Your task to perform on an android device: find snoozed emails in the gmail app Image 0: 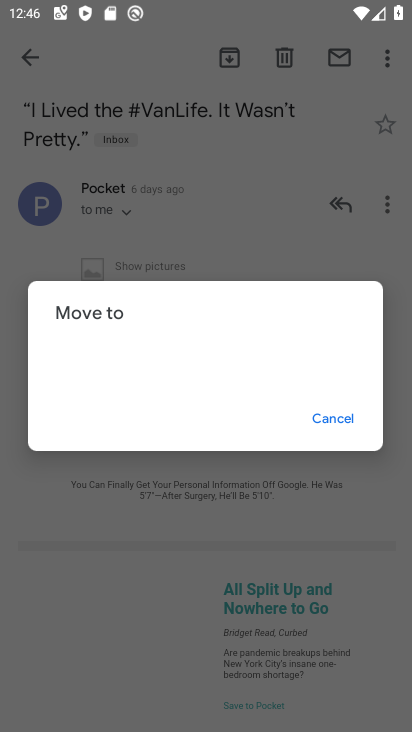
Step 0: press home button
Your task to perform on an android device: find snoozed emails in the gmail app Image 1: 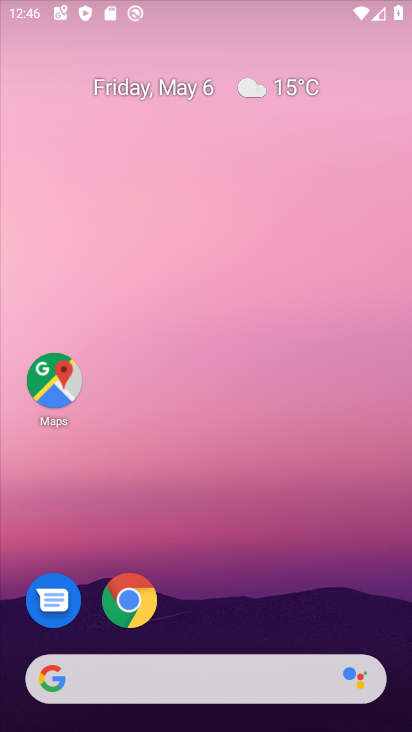
Step 1: drag from (373, 565) to (323, 68)
Your task to perform on an android device: find snoozed emails in the gmail app Image 2: 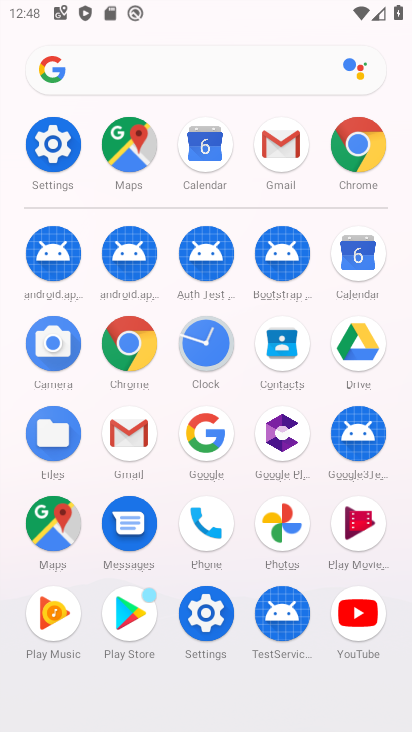
Step 2: click (134, 433)
Your task to perform on an android device: find snoozed emails in the gmail app Image 3: 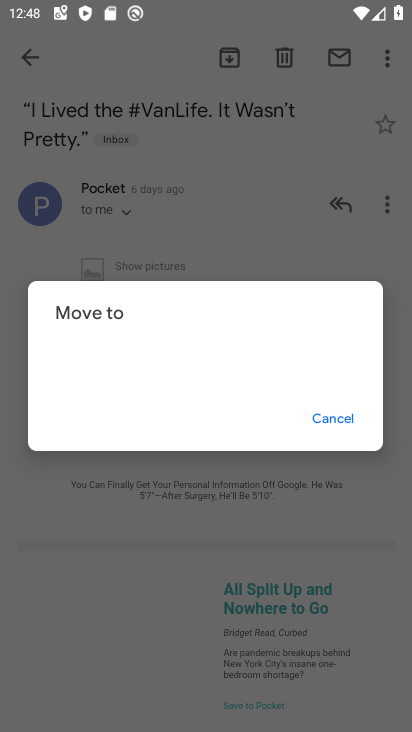
Step 3: click (332, 404)
Your task to perform on an android device: find snoozed emails in the gmail app Image 4: 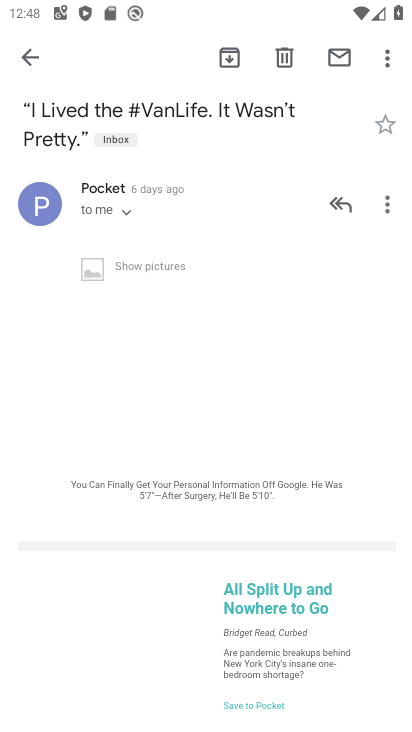
Step 4: press back button
Your task to perform on an android device: find snoozed emails in the gmail app Image 5: 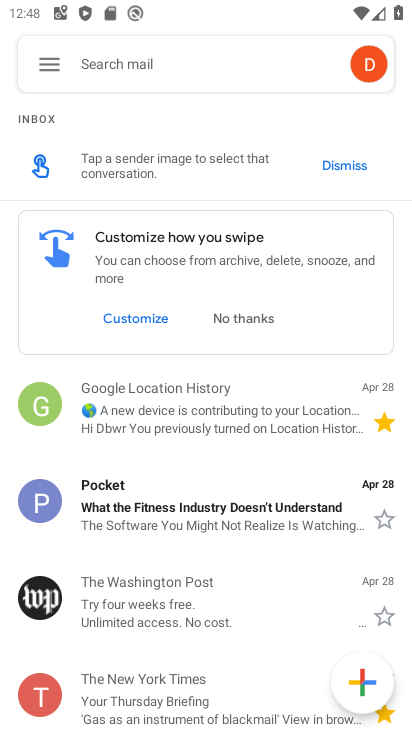
Step 5: click (40, 69)
Your task to perform on an android device: find snoozed emails in the gmail app Image 6: 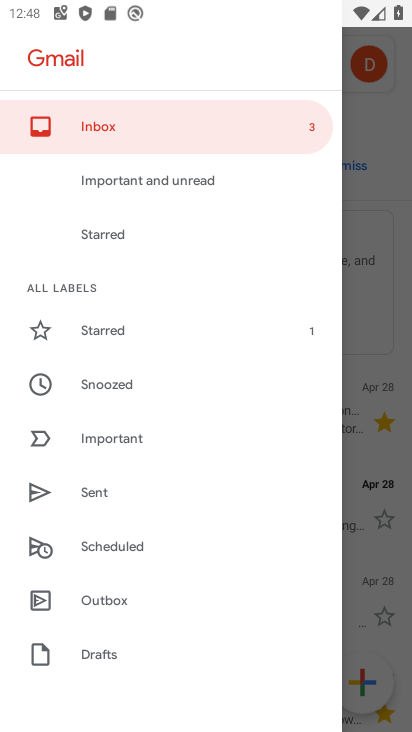
Step 6: click (151, 388)
Your task to perform on an android device: find snoozed emails in the gmail app Image 7: 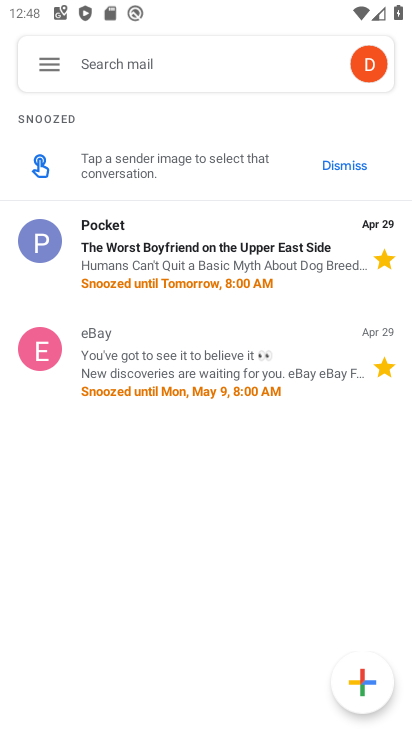
Step 7: task complete